Your task to perform on an android device: change the upload size in google photos Image 0: 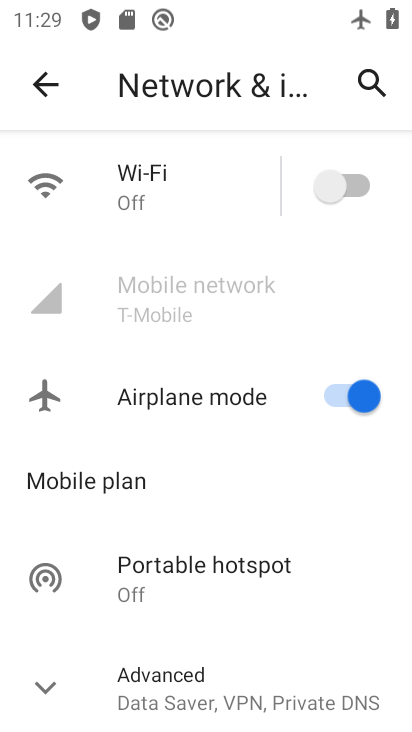
Step 0: press home button
Your task to perform on an android device: change the upload size in google photos Image 1: 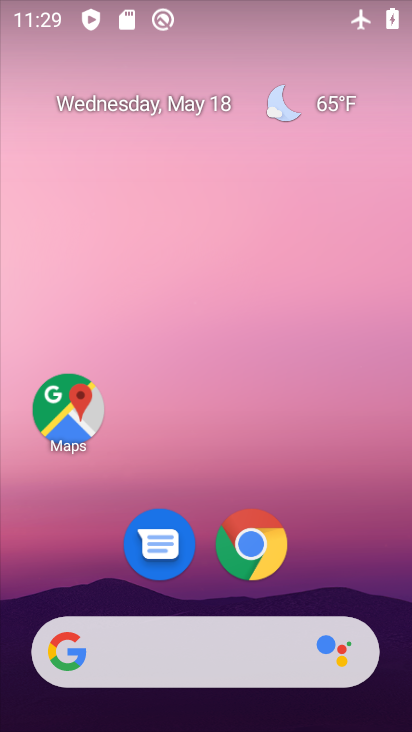
Step 1: drag from (368, 473) to (396, 59)
Your task to perform on an android device: change the upload size in google photos Image 2: 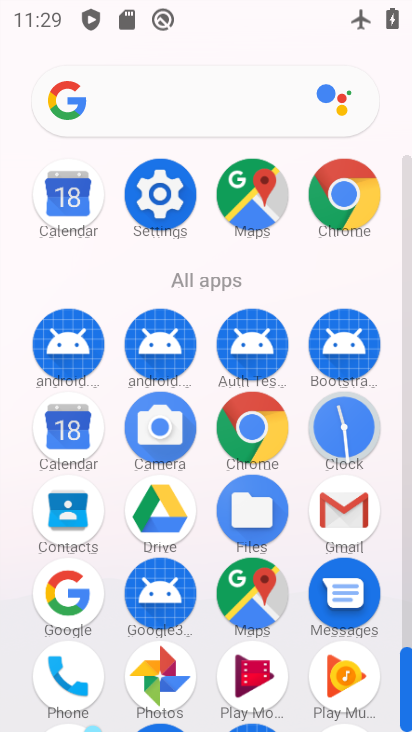
Step 2: drag from (383, 624) to (399, 233)
Your task to perform on an android device: change the upload size in google photos Image 3: 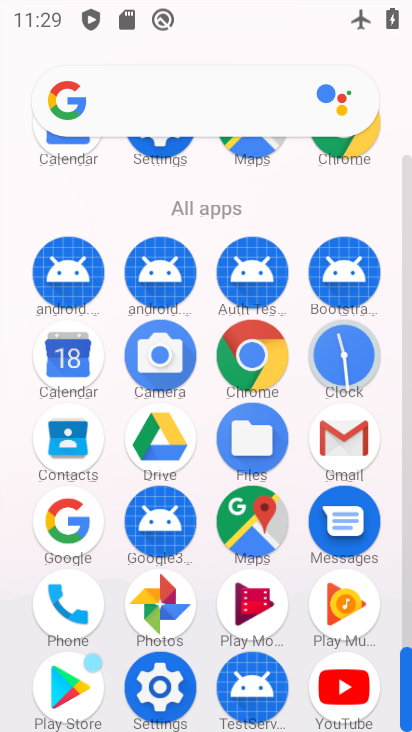
Step 3: click (159, 605)
Your task to perform on an android device: change the upload size in google photos Image 4: 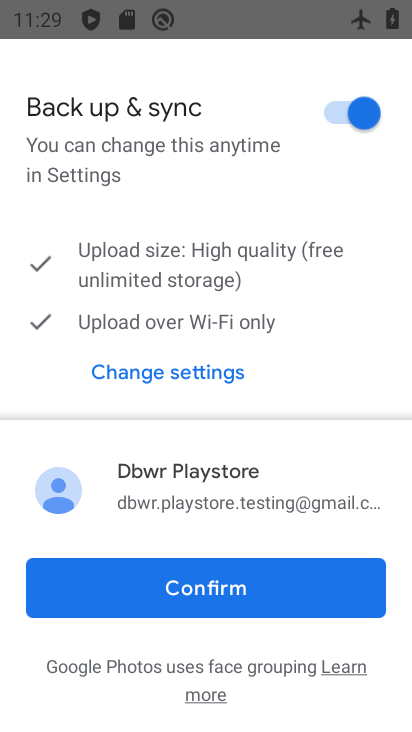
Step 4: click (159, 605)
Your task to perform on an android device: change the upload size in google photos Image 5: 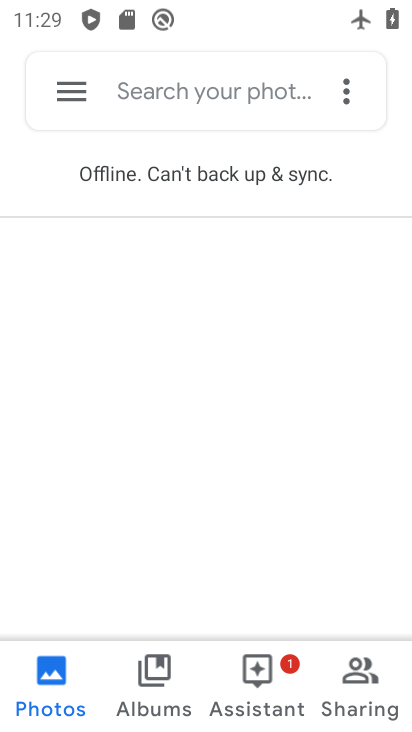
Step 5: click (72, 93)
Your task to perform on an android device: change the upload size in google photos Image 6: 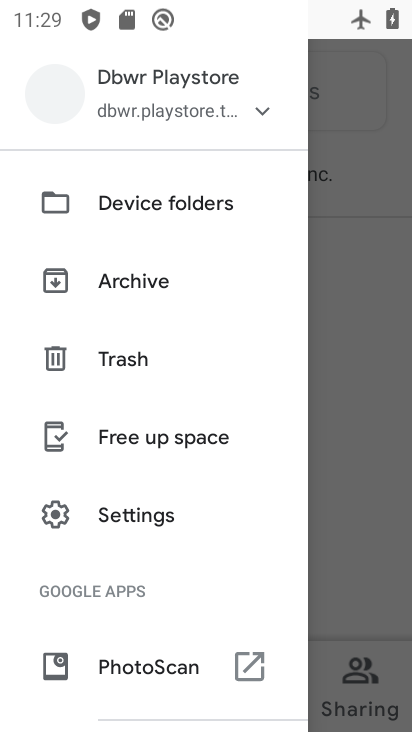
Step 6: click (155, 521)
Your task to perform on an android device: change the upload size in google photos Image 7: 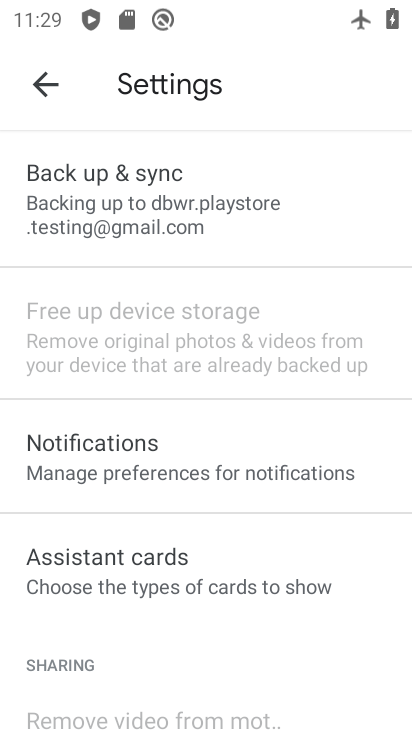
Step 7: click (188, 210)
Your task to perform on an android device: change the upload size in google photos Image 8: 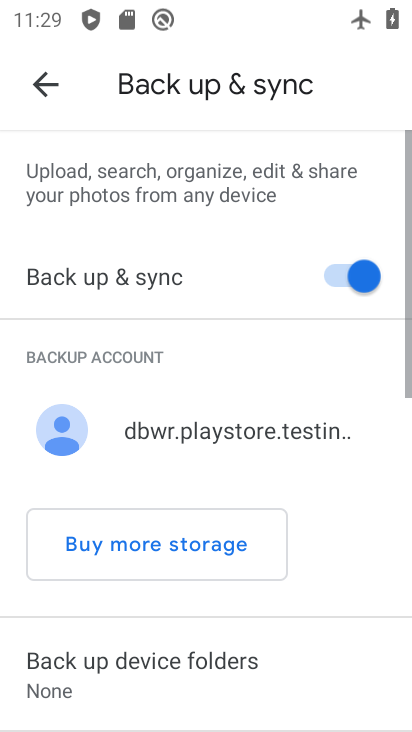
Step 8: drag from (247, 528) to (256, 292)
Your task to perform on an android device: change the upload size in google photos Image 9: 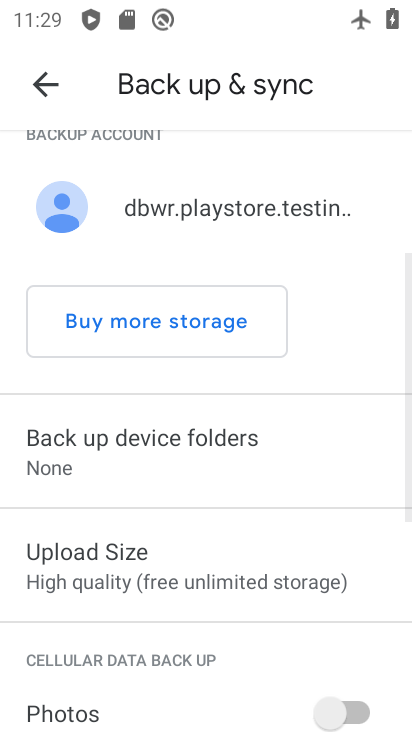
Step 9: drag from (260, 606) to (272, 399)
Your task to perform on an android device: change the upload size in google photos Image 10: 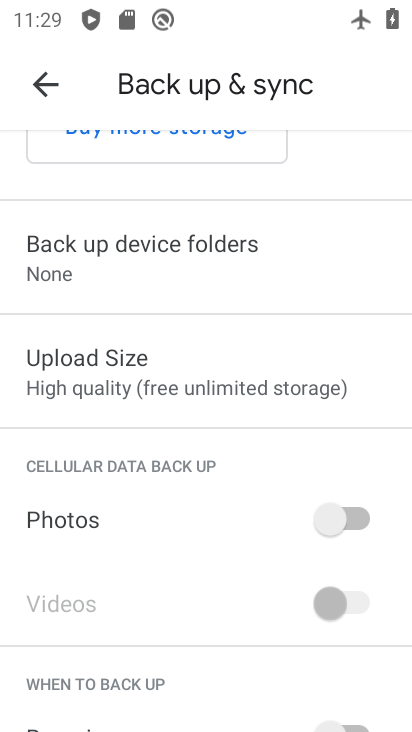
Step 10: click (175, 384)
Your task to perform on an android device: change the upload size in google photos Image 11: 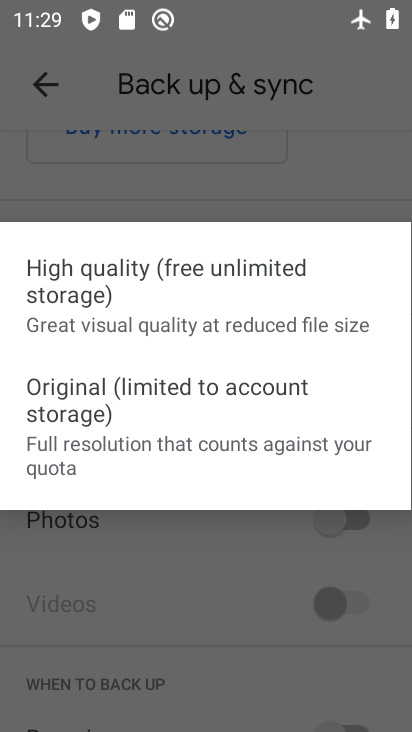
Step 11: click (162, 405)
Your task to perform on an android device: change the upload size in google photos Image 12: 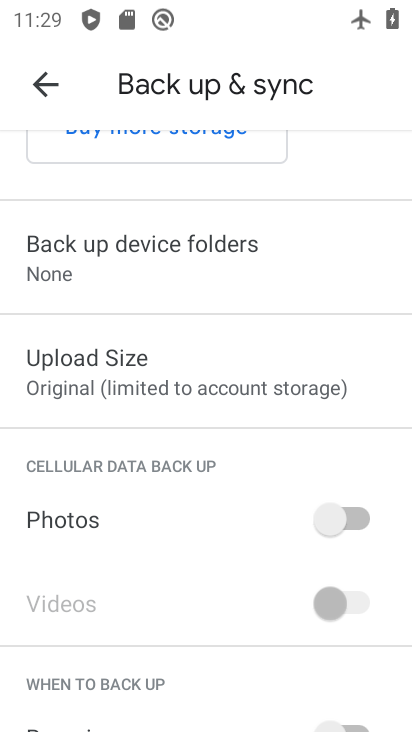
Step 12: task complete